Your task to perform on an android device: turn on wifi Image 0: 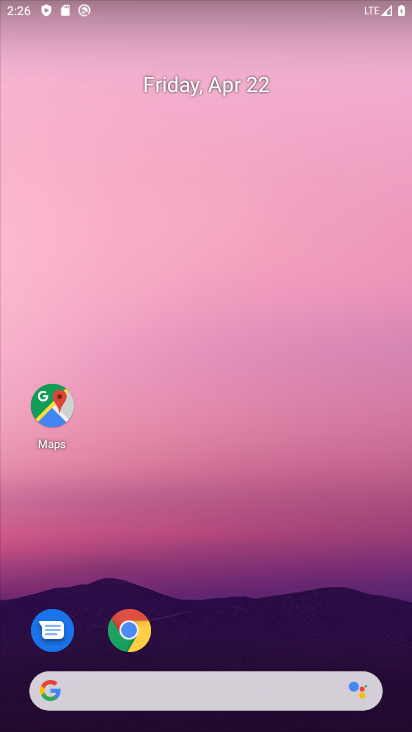
Step 0: drag from (372, 563) to (392, 68)
Your task to perform on an android device: turn on wifi Image 1: 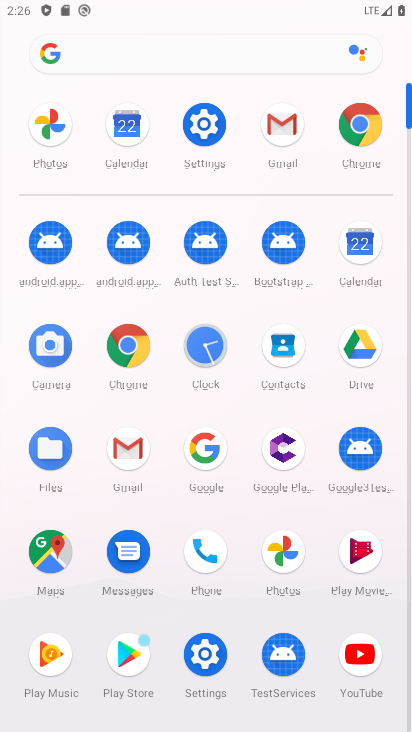
Step 1: click (189, 117)
Your task to perform on an android device: turn on wifi Image 2: 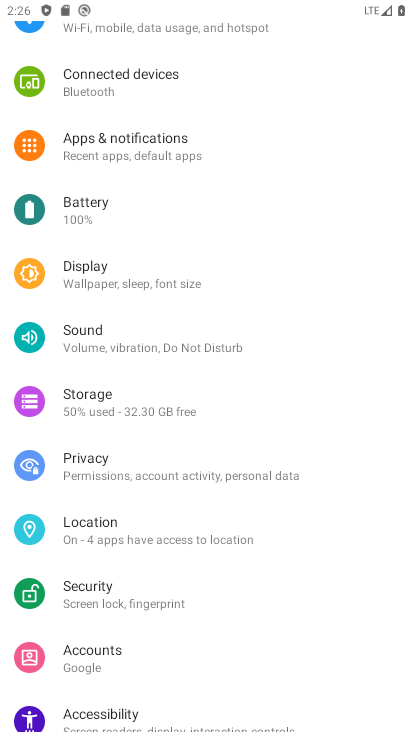
Step 2: drag from (268, 83) to (222, 377)
Your task to perform on an android device: turn on wifi Image 3: 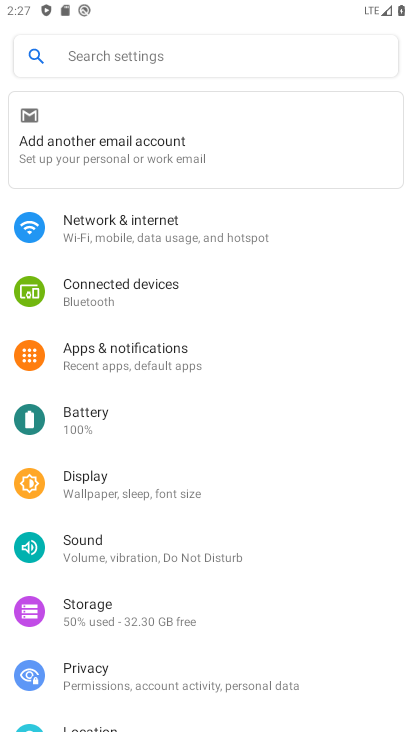
Step 3: click (220, 377)
Your task to perform on an android device: turn on wifi Image 4: 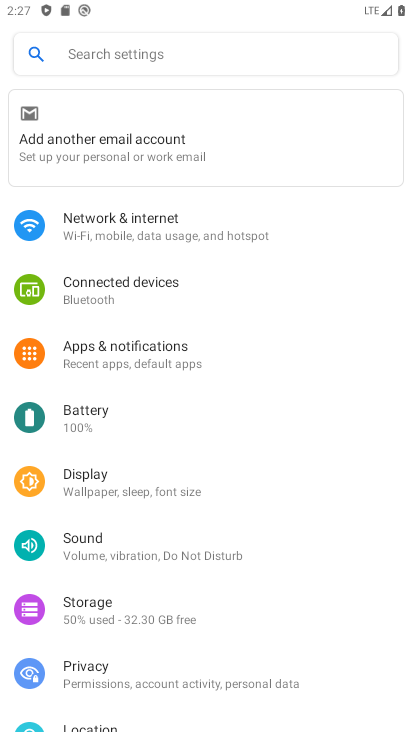
Step 4: click (202, 233)
Your task to perform on an android device: turn on wifi Image 5: 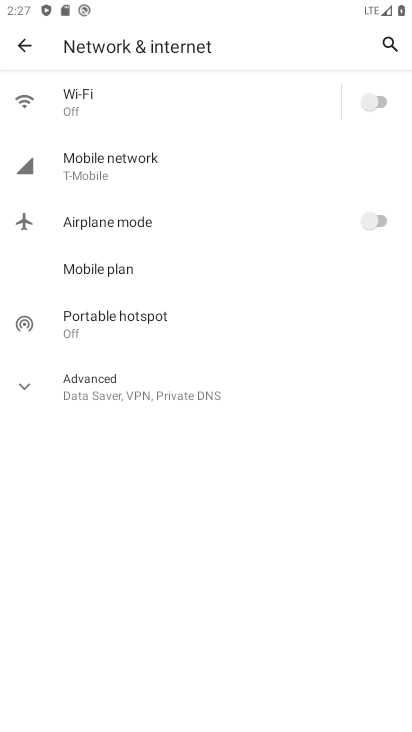
Step 5: click (379, 102)
Your task to perform on an android device: turn on wifi Image 6: 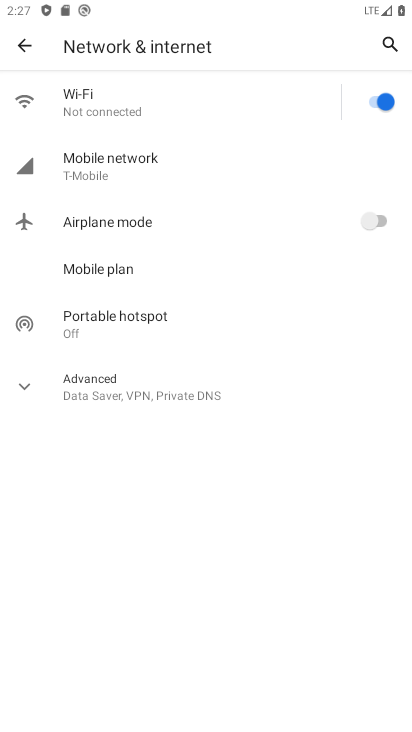
Step 6: task complete